Your task to perform on an android device: check storage Image 0: 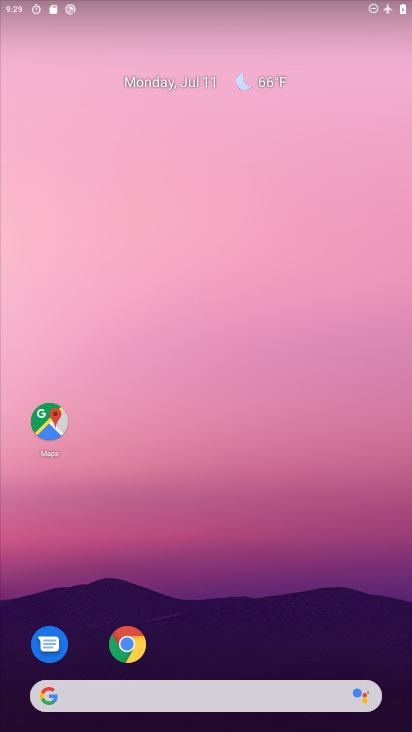
Step 0: drag from (262, 553) to (214, 74)
Your task to perform on an android device: check storage Image 1: 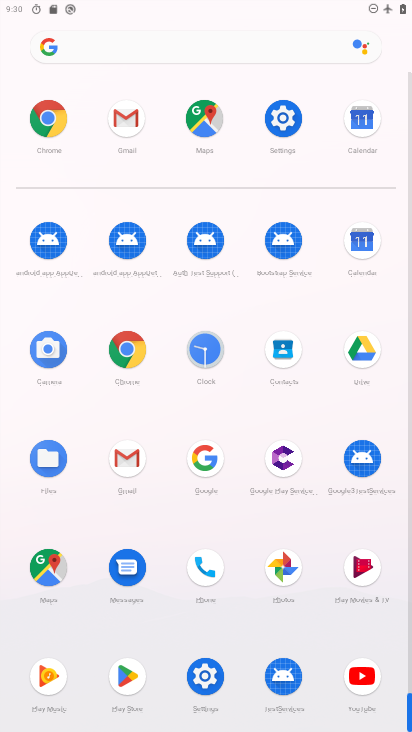
Step 1: click (289, 129)
Your task to perform on an android device: check storage Image 2: 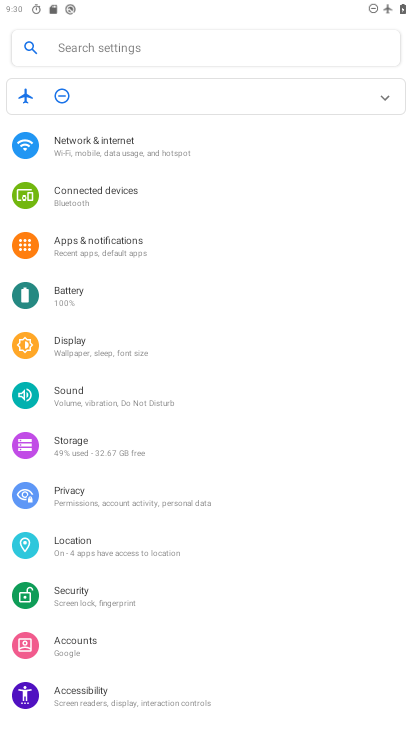
Step 2: click (73, 445)
Your task to perform on an android device: check storage Image 3: 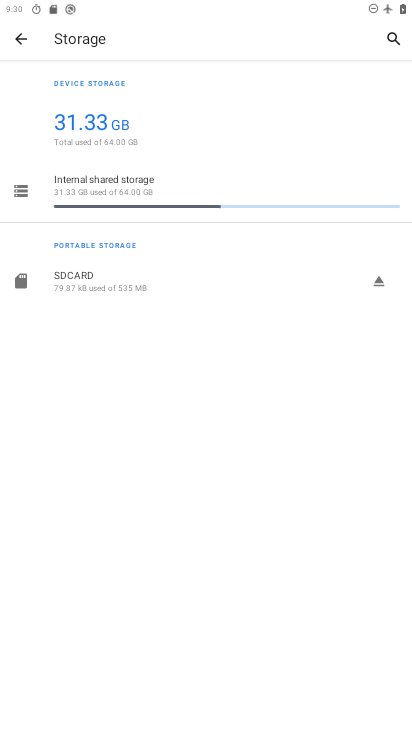
Step 3: task complete